Your task to perform on an android device: Open maps Image 0: 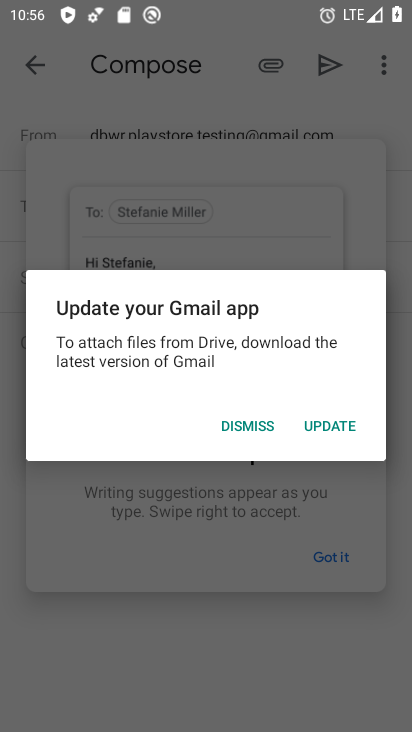
Step 0: press home button
Your task to perform on an android device: Open maps Image 1: 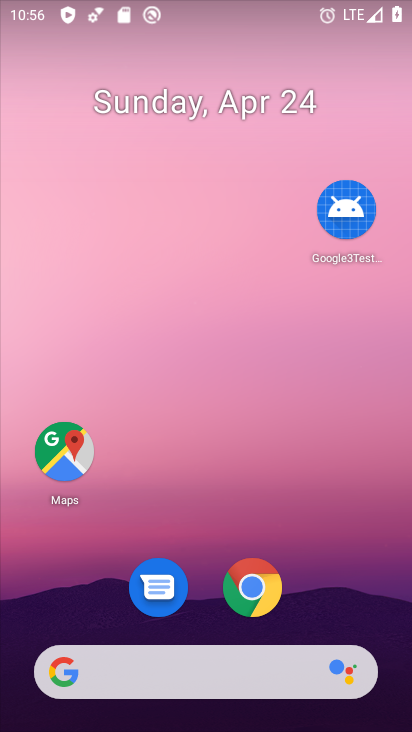
Step 1: drag from (338, 532) to (309, 132)
Your task to perform on an android device: Open maps Image 2: 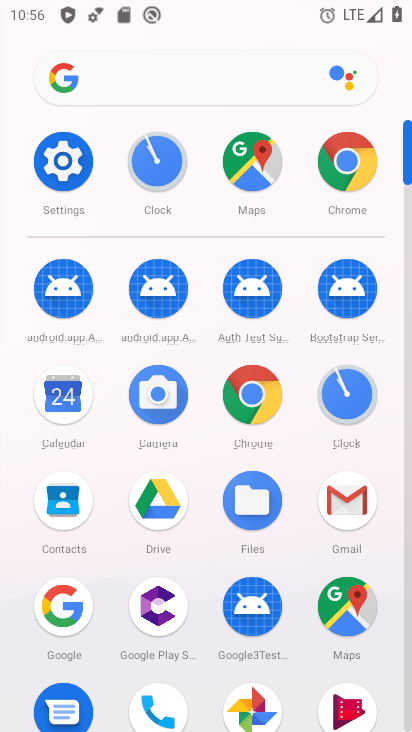
Step 2: click (256, 181)
Your task to perform on an android device: Open maps Image 3: 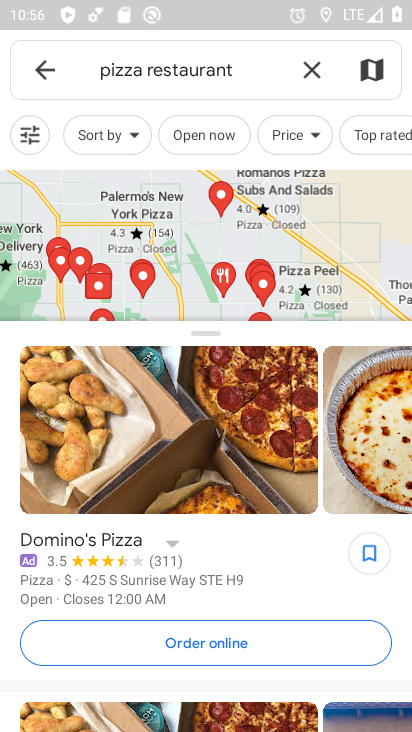
Step 3: task complete